Your task to perform on an android device: When is my next appointment? Image 0: 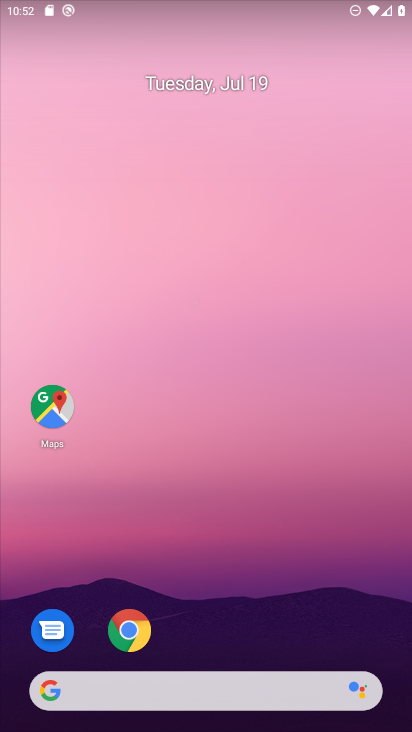
Step 0: drag from (204, 629) to (165, 144)
Your task to perform on an android device: When is my next appointment? Image 1: 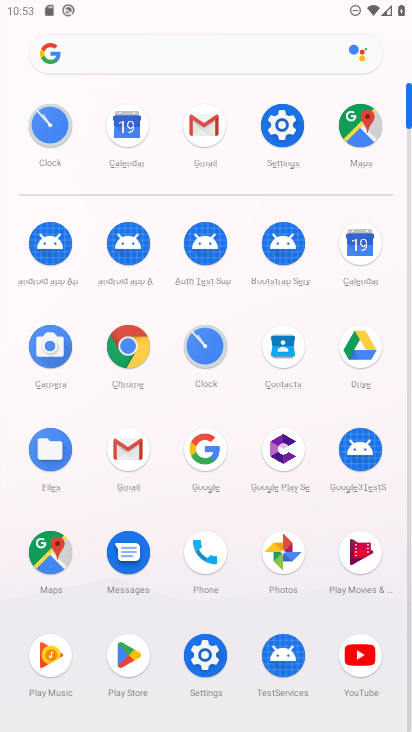
Step 1: click (359, 251)
Your task to perform on an android device: When is my next appointment? Image 2: 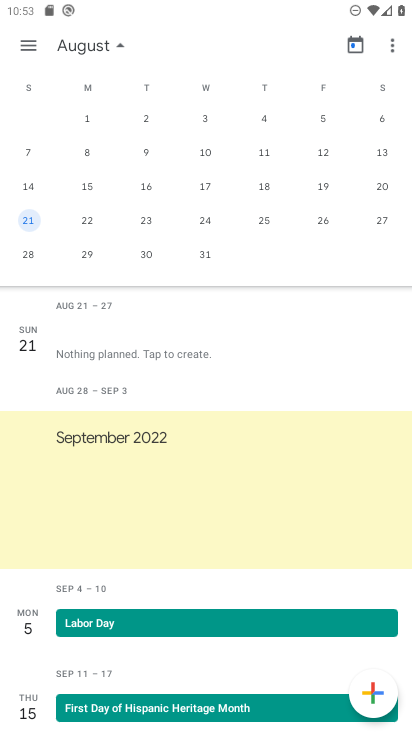
Step 2: drag from (71, 166) to (352, 170)
Your task to perform on an android device: When is my next appointment? Image 3: 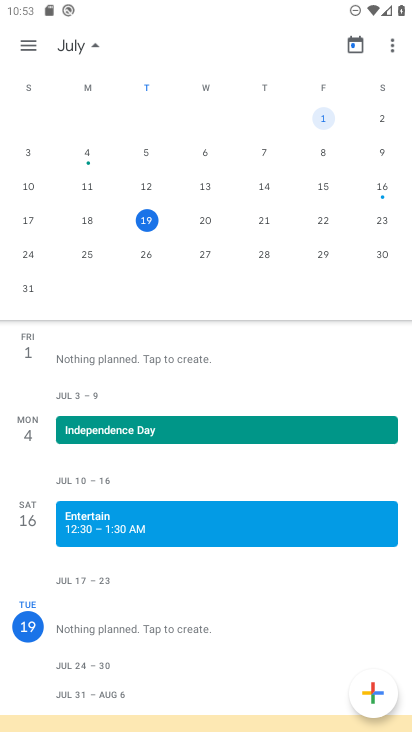
Step 3: click (207, 223)
Your task to perform on an android device: When is my next appointment? Image 4: 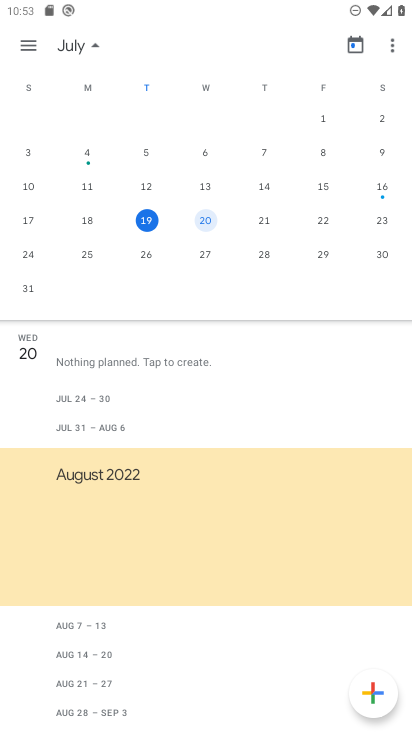
Step 4: task complete